Your task to perform on an android device: set an alarm Image 0: 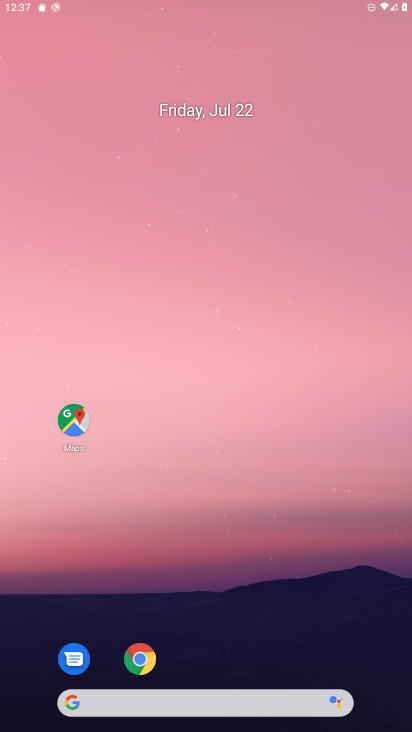
Step 0: press home button
Your task to perform on an android device: set an alarm Image 1: 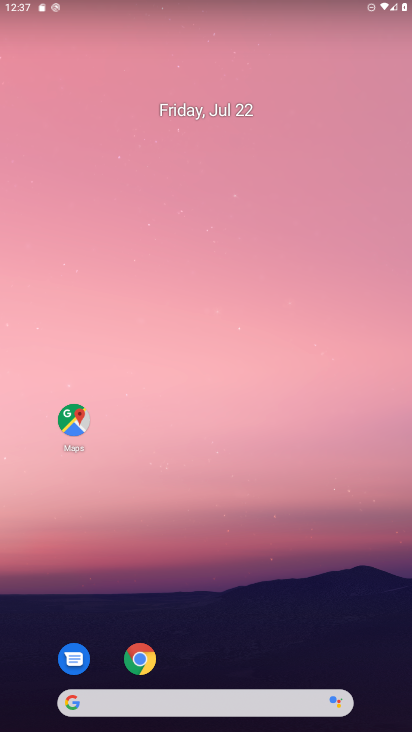
Step 1: drag from (243, 640) to (307, 153)
Your task to perform on an android device: set an alarm Image 2: 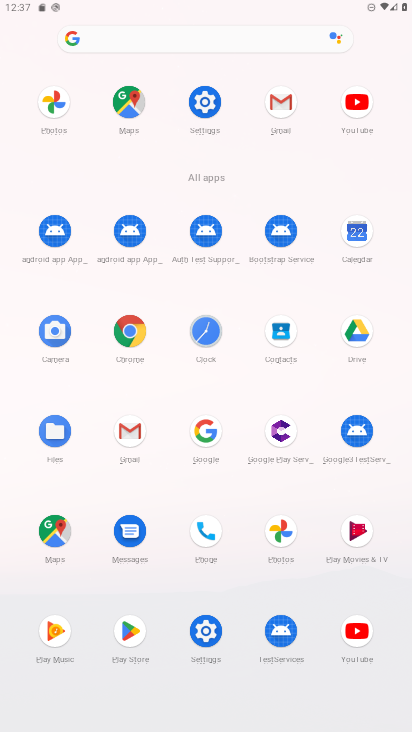
Step 2: click (206, 330)
Your task to perform on an android device: set an alarm Image 3: 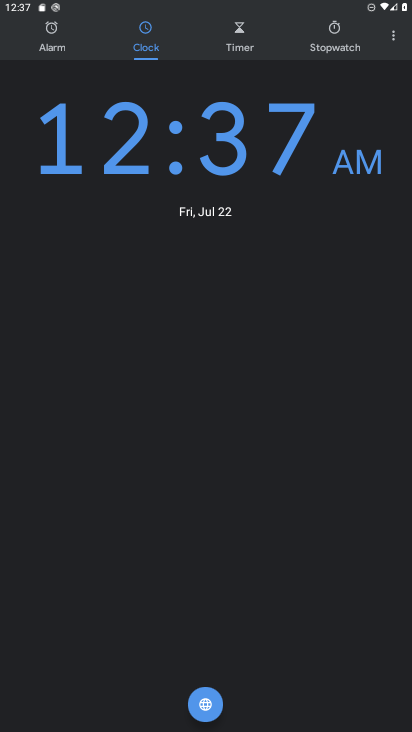
Step 3: click (57, 48)
Your task to perform on an android device: set an alarm Image 4: 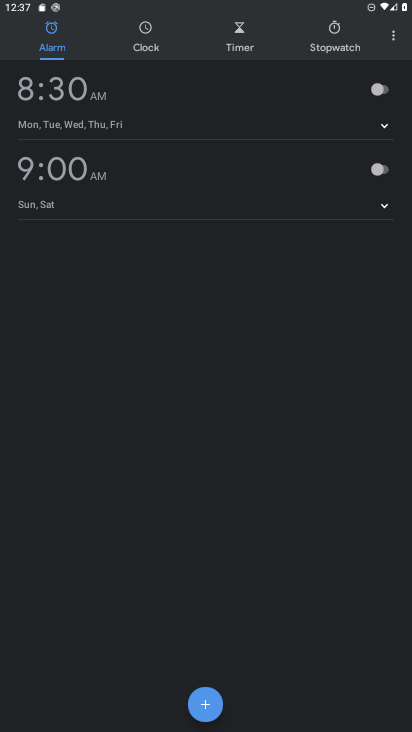
Step 4: click (377, 102)
Your task to perform on an android device: set an alarm Image 5: 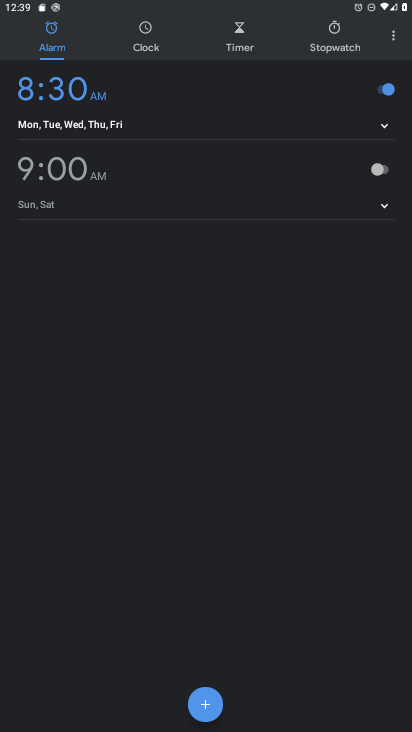
Step 5: task complete